Your task to perform on an android device: remove spam from my inbox in the gmail app Image 0: 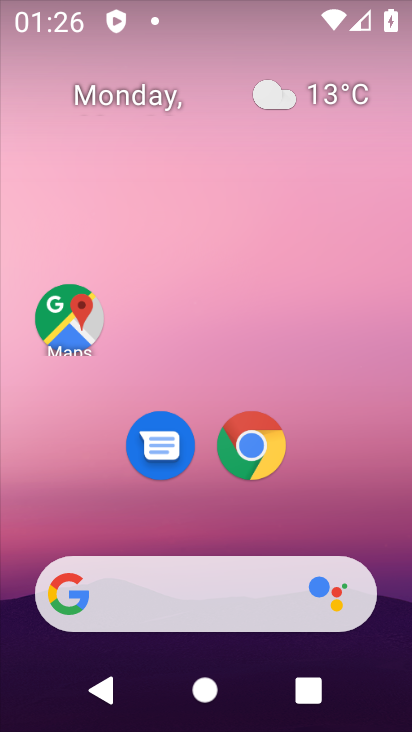
Step 0: click (402, 612)
Your task to perform on an android device: remove spam from my inbox in the gmail app Image 1: 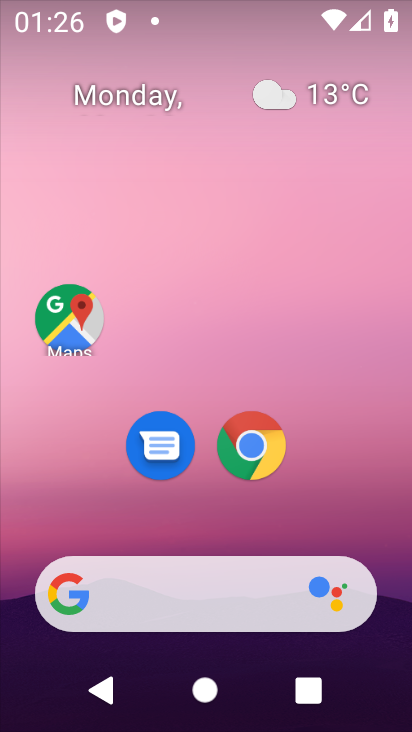
Step 1: drag from (279, 500) to (252, 58)
Your task to perform on an android device: remove spam from my inbox in the gmail app Image 2: 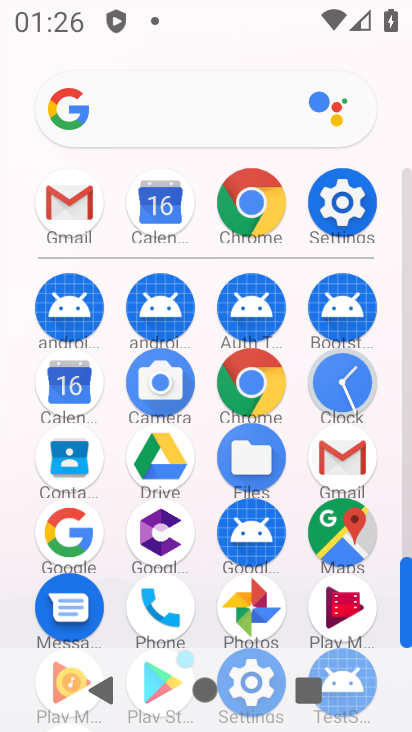
Step 2: click (78, 216)
Your task to perform on an android device: remove spam from my inbox in the gmail app Image 3: 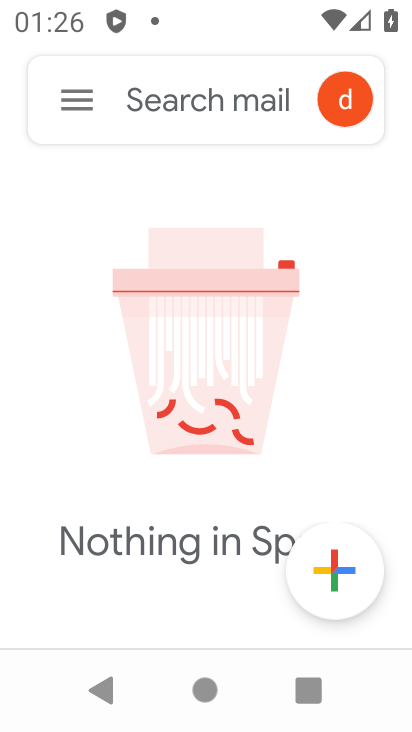
Step 3: click (81, 102)
Your task to perform on an android device: remove spam from my inbox in the gmail app Image 4: 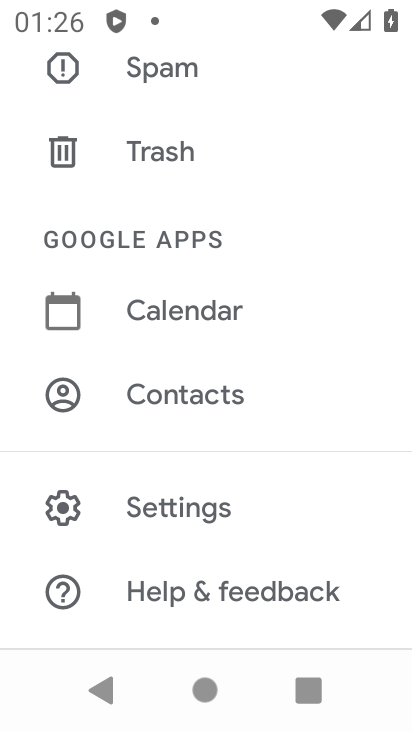
Step 4: click (174, 71)
Your task to perform on an android device: remove spam from my inbox in the gmail app Image 5: 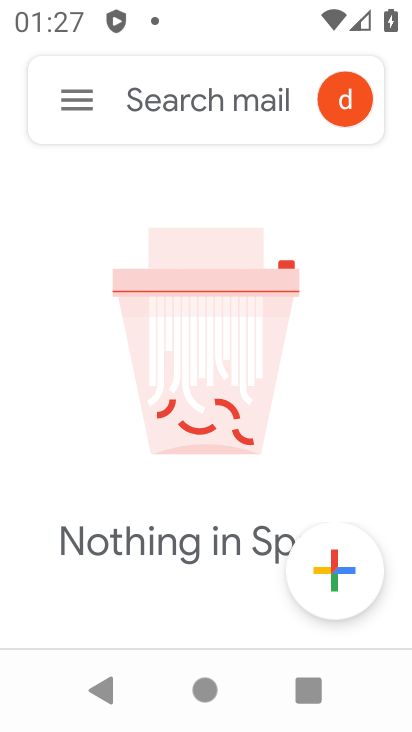
Step 5: task complete